Your task to perform on an android device: Clear the shopping cart on bestbuy.com. Search for "bose soundlink mini" on bestbuy.com, select the first entry, add it to the cart, then select checkout. Image 0: 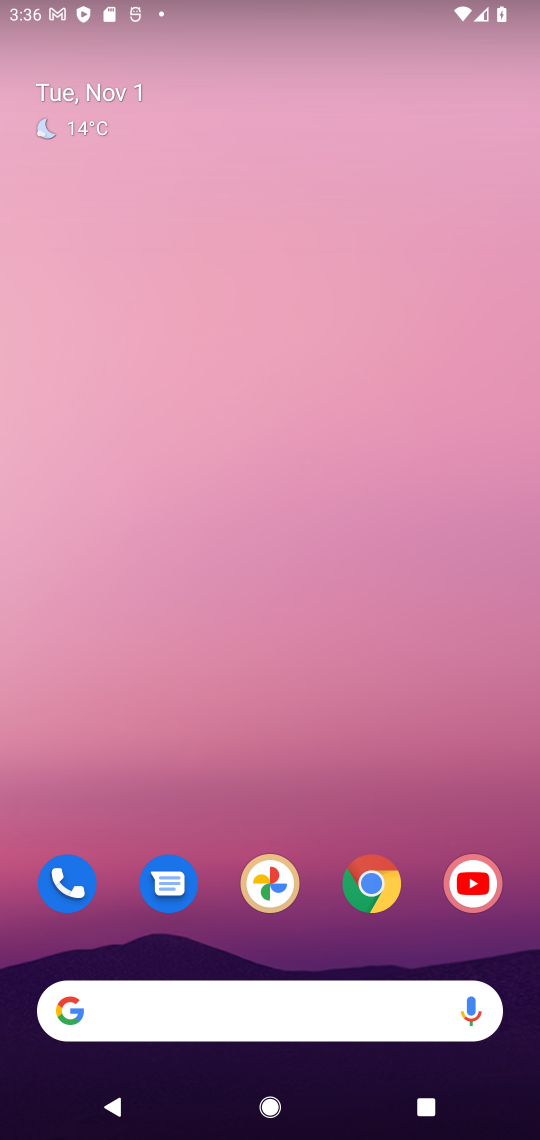
Step 0: click (362, 879)
Your task to perform on an android device: Clear the shopping cart on bestbuy.com. Search for "bose soundlink mini" on bestbuy.com, select the first entry, add it to the cart, then select checkout. Image 1: 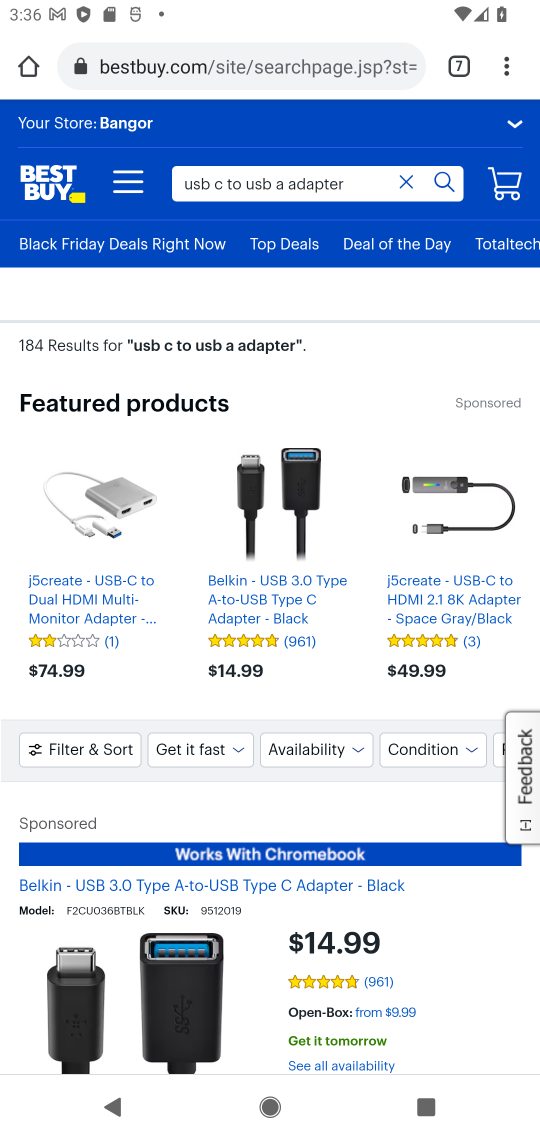
Step 1: click (458, 64)
Your task to perform on an android device: Clear the shopping cart on bestbuy.com. Search for "bose soundlink mini" on bestbuy.com, select the first entry, add it to the cart, then select checkout. Image 2: 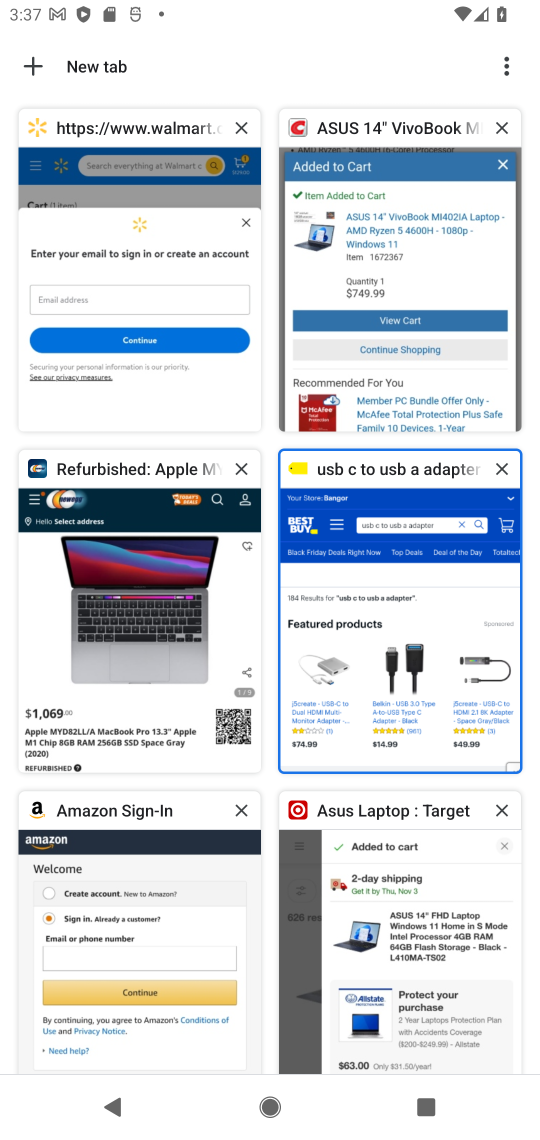
Step 2: click (364, 535)
Your task to perform on an android device: Clear the shopping cart on bestbuy.com. Search for "bose soundlink mini" on bestbuy.com, select the first entry, add it to the cart, then select checkout. Image 3: 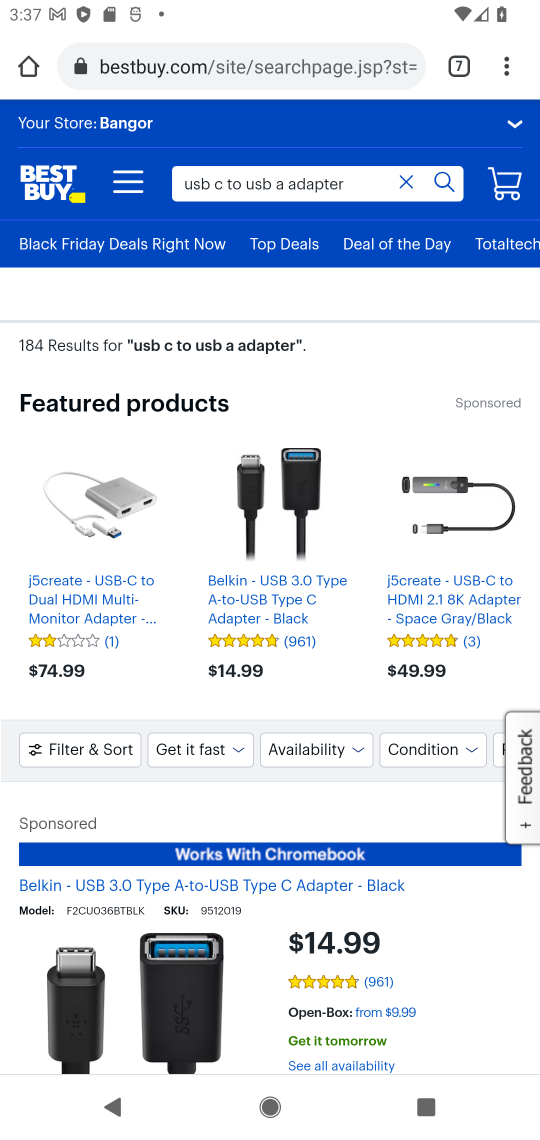
Step 3: click (402, 180)
Your task to perform on an android device: Clear the shopping cart on bestbuy.com. Search for "bose soundlink mini" on bestbuy.com, select the first entry, add it to the cart, then select checkout. Image 4: 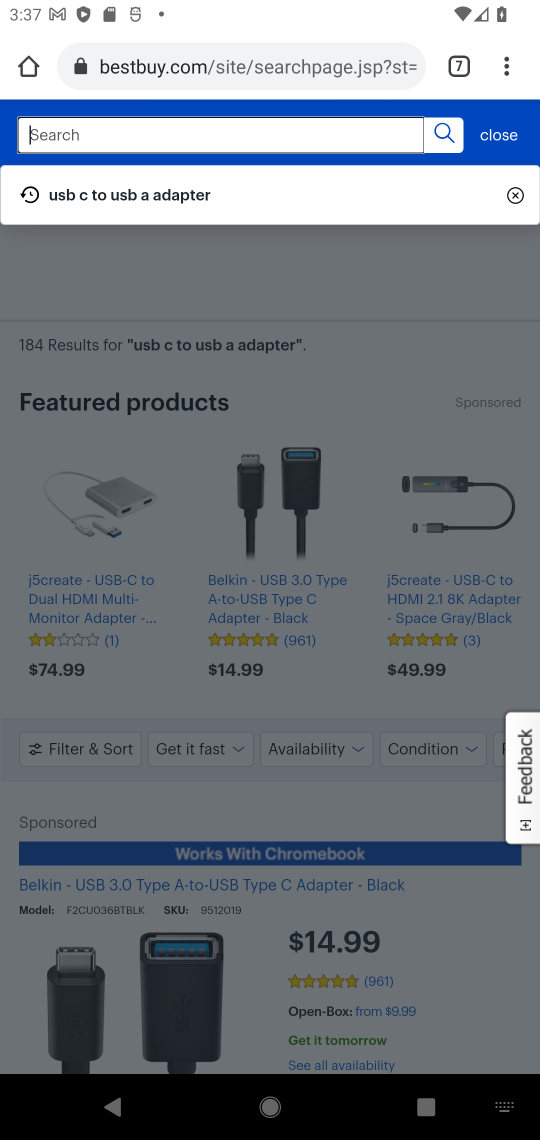
Step 4: click (210, 138)
Your task to perform on an android device: Clear the shopping cart on bestbuy.com. Search for "bose soundlink mini" on bestbuy.com, select the first entry, add it to the cart, then select checkout. Image 5: 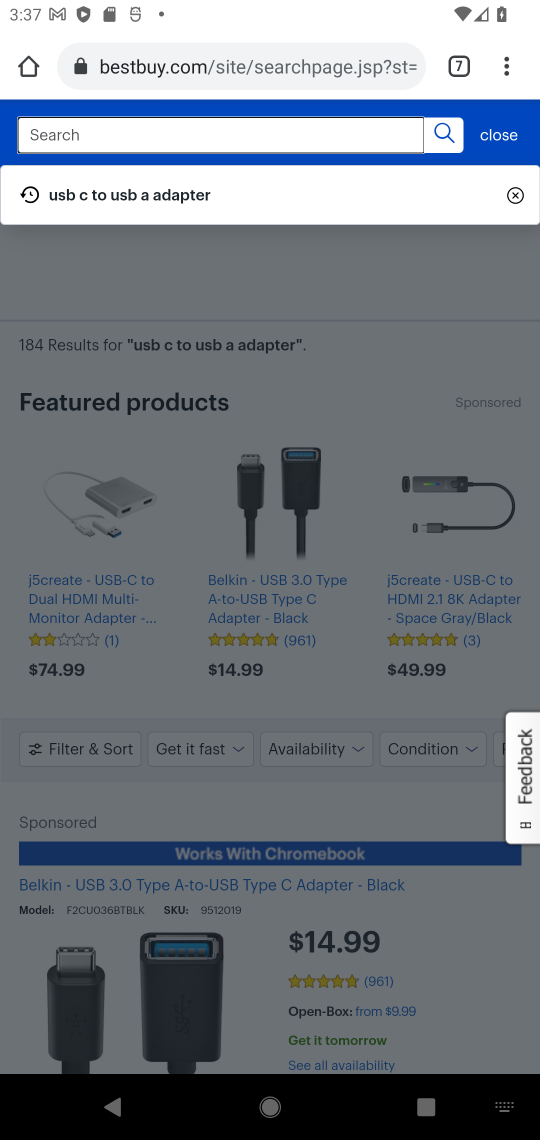
Step 5: type "bose soundlink min"
Your task to perform on an android device: Clear the shopping cart on bestbuy.com. Search for "bose soundlink mini" on bestbuy.com, select the first entry, add it to the cart, then select checkout. Image 6: 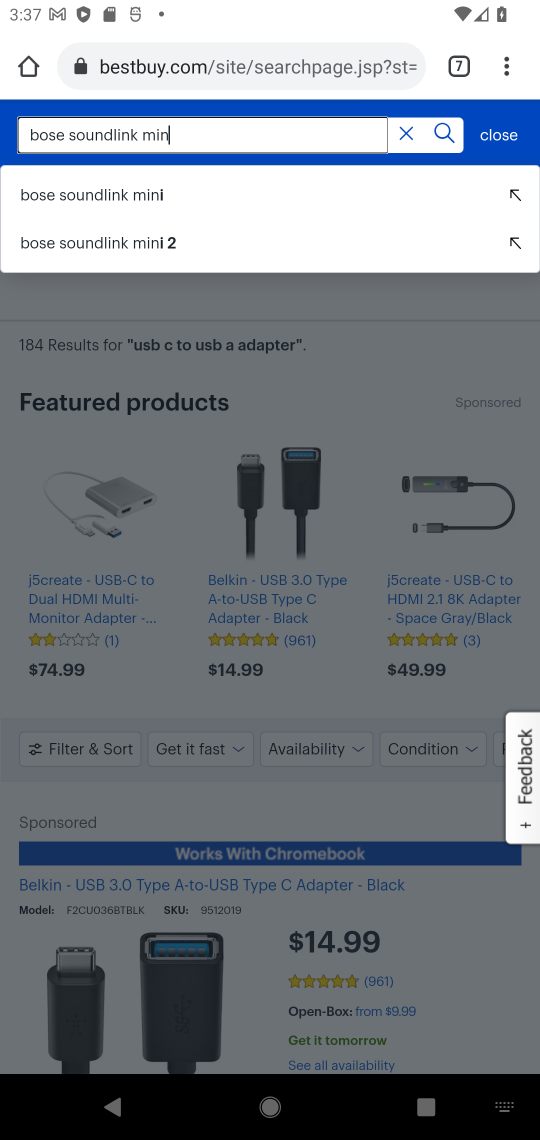
Step 6: click (153, 188)
Your task to perform on an android device: Clear the shopping cart on bestbuy.com. Search for "bose soundlink mini" on bestbuy.com, select the first entry, add it to the cart, then select checkout. Image 7: 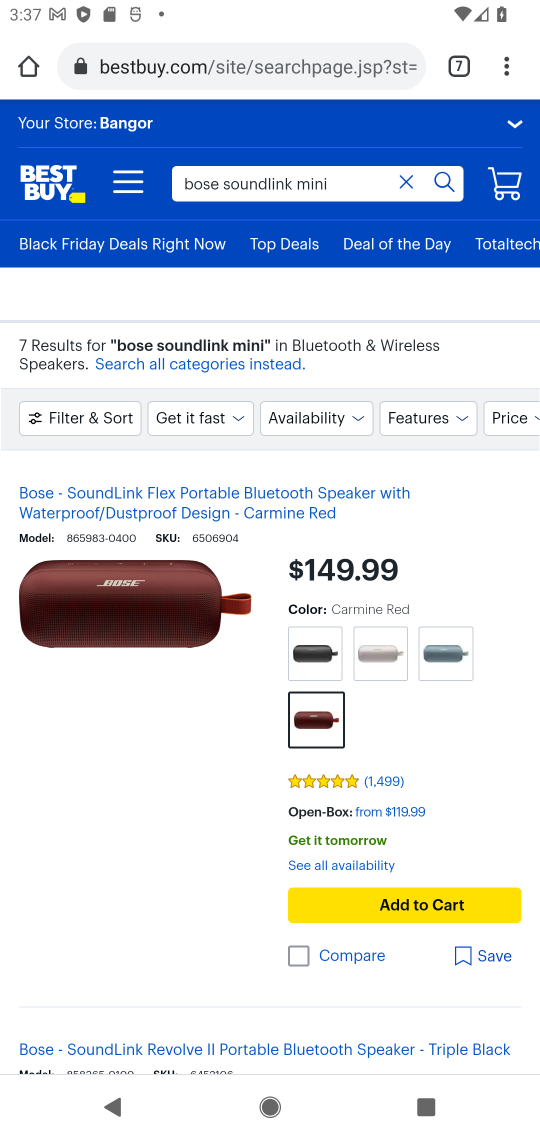
Step 7: click (394, 898)
Your task to perform on an android device: Clear the shopping cart on bestbuy.com. Search for "bose soundlink mini" on bestbuy.com, select the first entry, add it to the cart, then select checkout. Image 8: 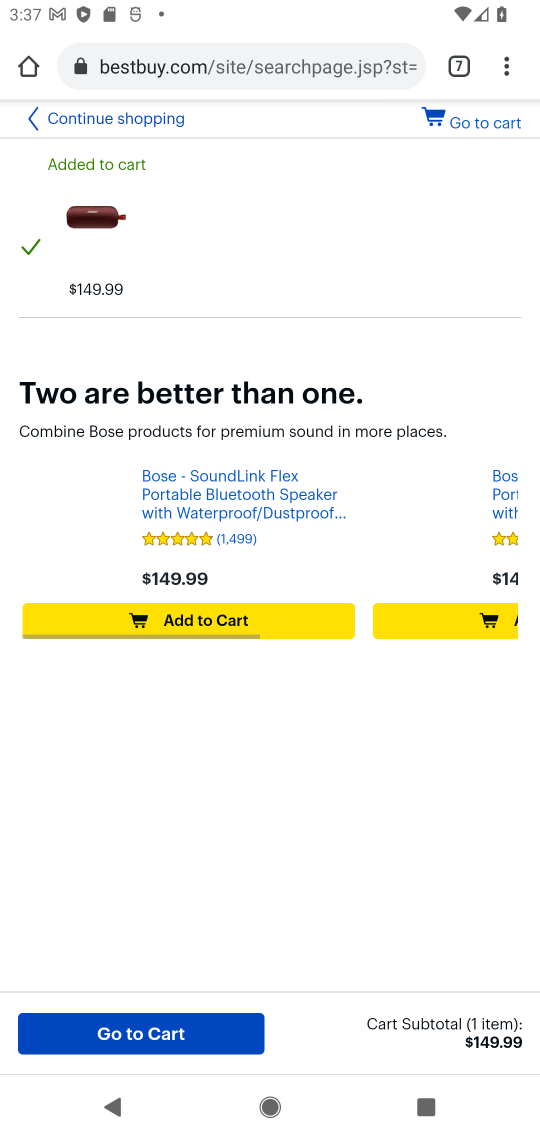
Step 8: task complete